Your task to perform on an android device: toggle data saver in the chrome app Image 0: 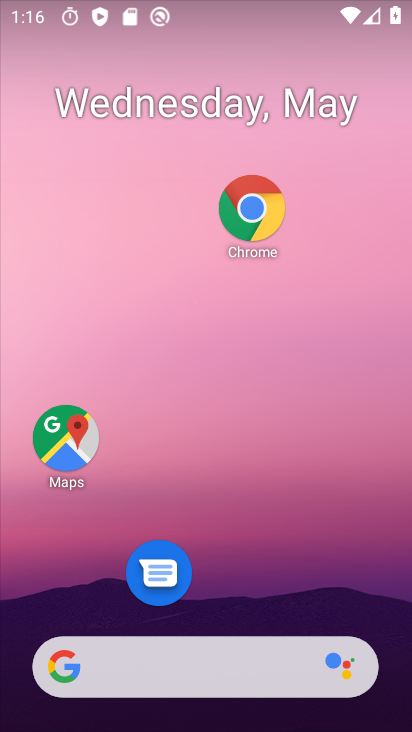
Step 0: click (248, 212)
Your task to perform on an android device: toggle data saver in the chrome app Image 1: 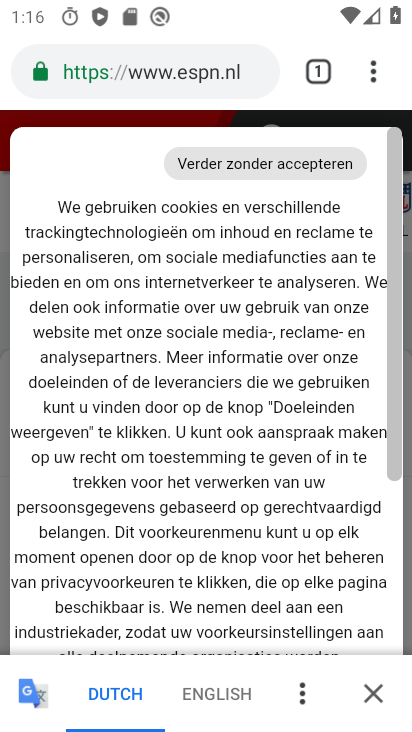
Step 1: click (380, 67)
Your task to perform on an android device: toggle data saver in the chrome app Image 2: 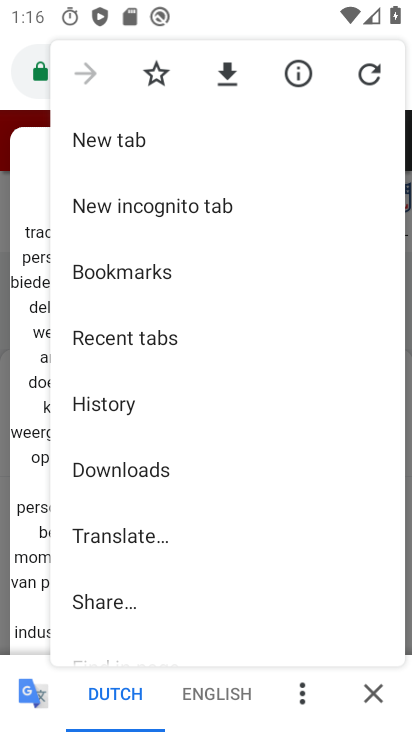
Step 2: drag from (134, 633) to (204, 187)
Your task to perform on an android device: toggle data saver in the chrome app Image 3: 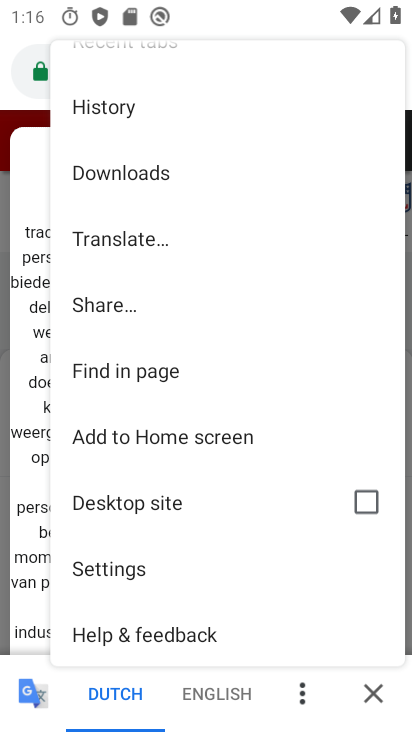
Step 3: click (126, 567)
Your task to perform on an android device: toggle data saver in the chrome app Image 4: 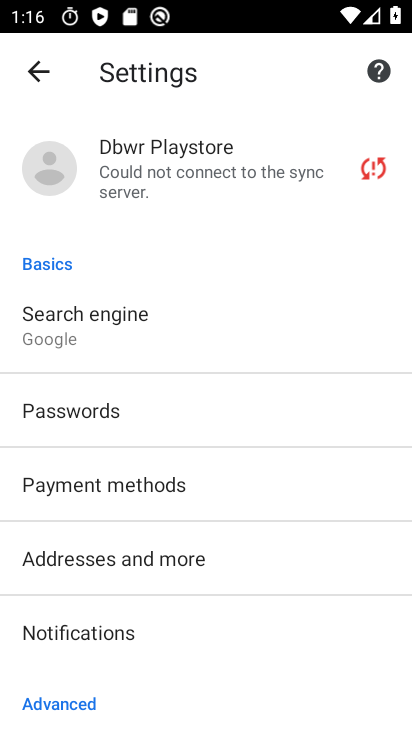
Step 4: drag from (104, 681) to (159, 194)
Your task to perform on an android device: toggle data saver in the chrome app Image 5: 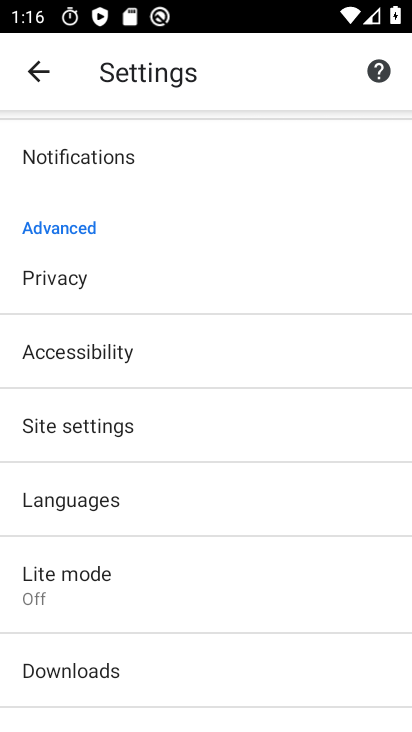
Step 5: click (115, 570)
Your task to perform on an android device: toggle data saver in the chrome app Image 6: 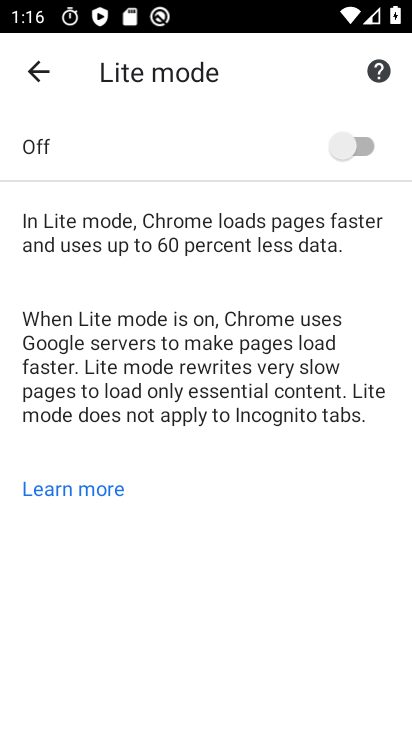
Step 6: click (370, 134)
Your task to perform on an android device: toggle data saver in the chrome app Image 7: 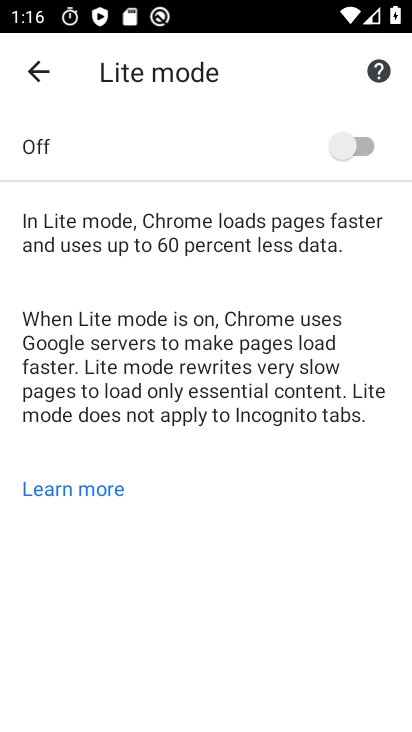
Step 7: click (370, 134)
Your task to perform on an android device: toggle data saver in the chrome app Image 8: 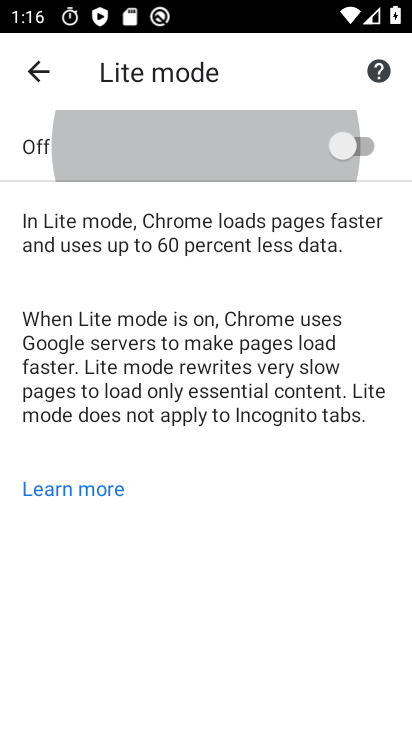
Step 8: click (370, 134)
Your task to perform on an android device: toggle data saver in the chrome app Image 9: 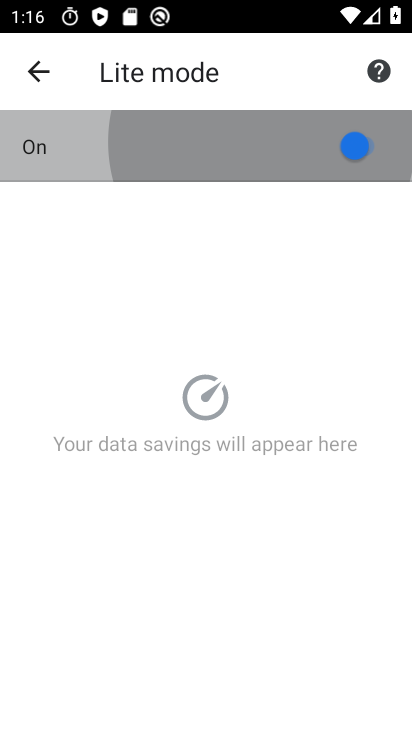
Step 9: click (370, 134)
Your task to perform on an android device: toggle data saver in the chrome app Image 10: 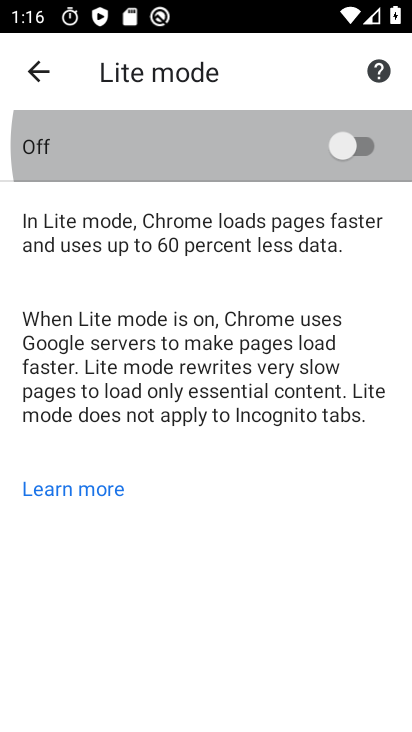
Step 10: click (370, 134)
Your task to perform on an android device: toggle data saver in the chrome app Image 11: 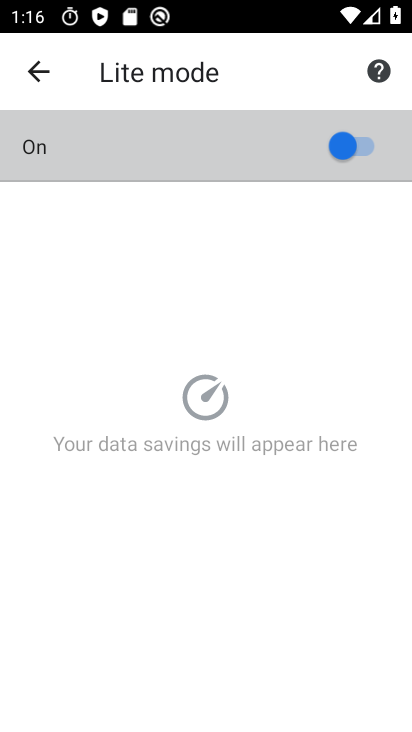
Step 11: click (370, 134)
Your task to perform on an android device: toggle data saver in the chrome app Image 12: 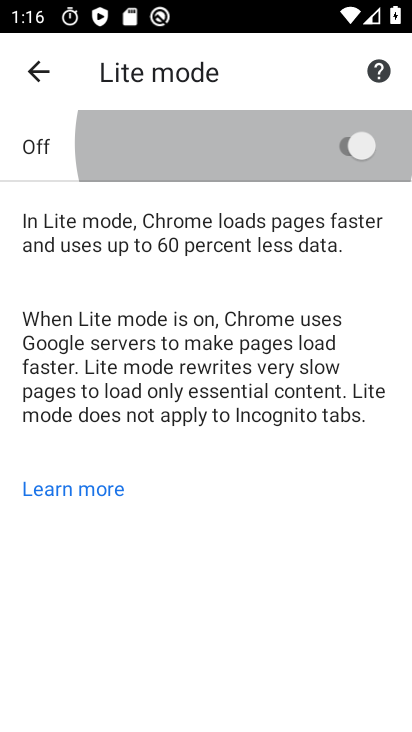
Step 12: click (370, 134)
Your task to perform on an android device: toggle data saver in the chrome app Image 13: 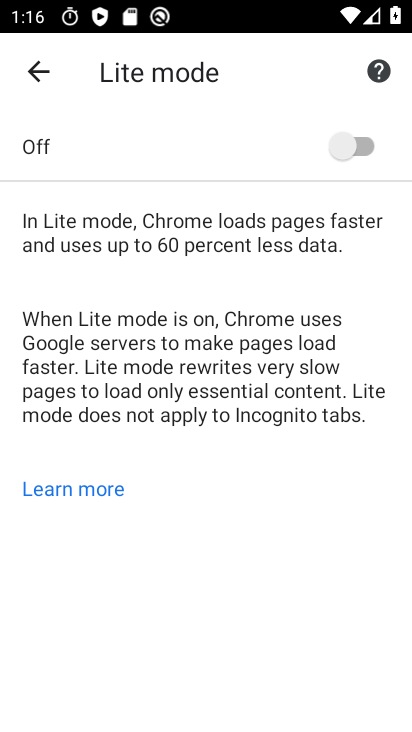
Step 13: task complete